Your task to perform on an android device: Open Chrome and go to the settings page Image 0: 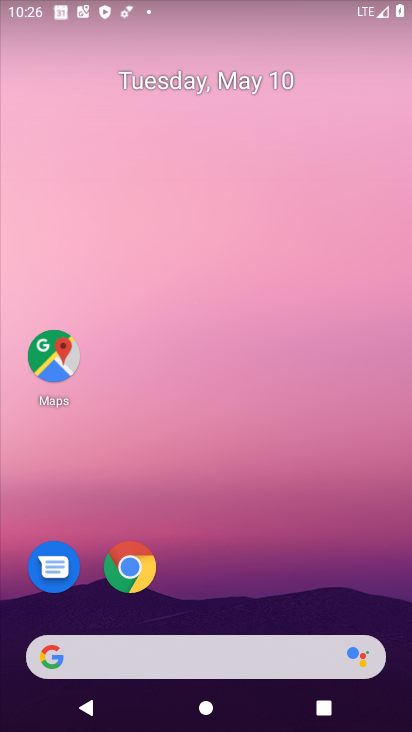
Step 0: click (117, 569)
Your task to perform on an android device: Open Chrome and go to the settings page Image 1: 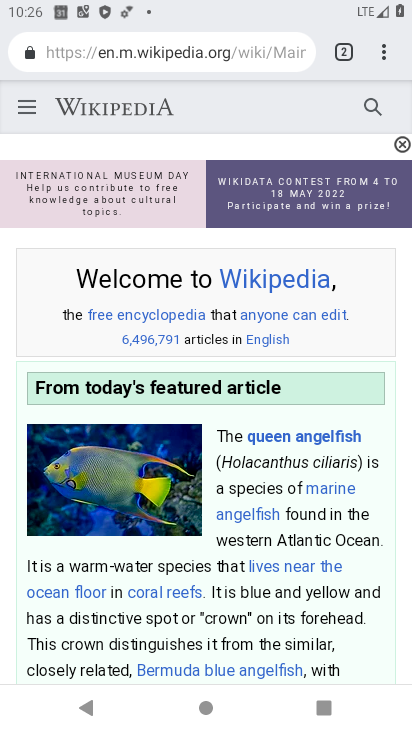
Step 1: click (377, 55)
Your task to perform on an android device: Open Chrome and go to the settings page Image 2: 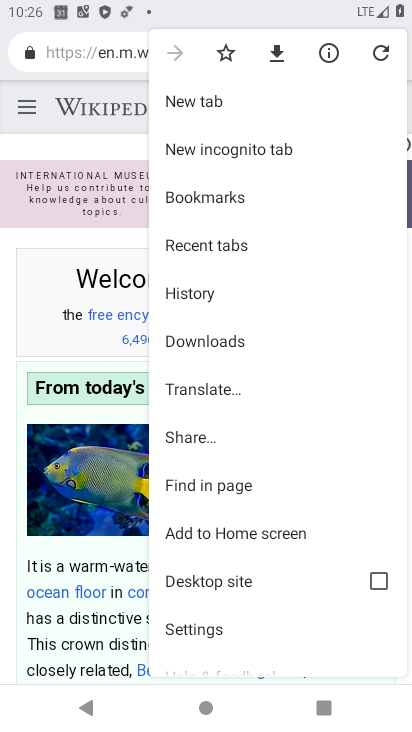
Step 2: click (234, 620)
Your task to perform on an android device: Open Chrome and go to the settings page Image 3: 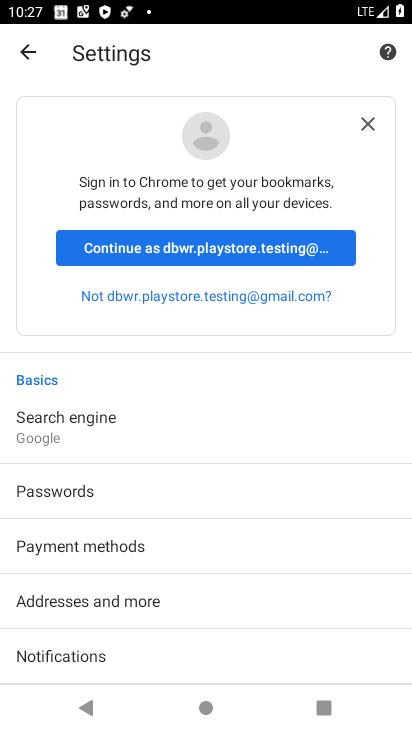
Step 3: task complete